Your task to perform on an android device: Open Wikipedia Image 0: 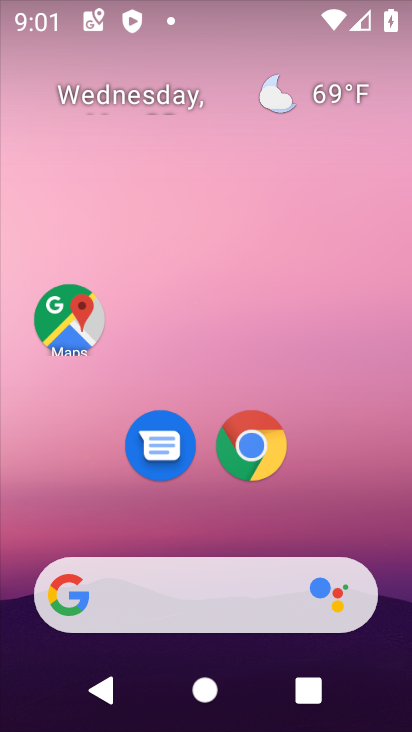
Step 0: drag from (301, 514) to (324, 93)
Your task to perform on an android device: Open Wikipedia Image 1: 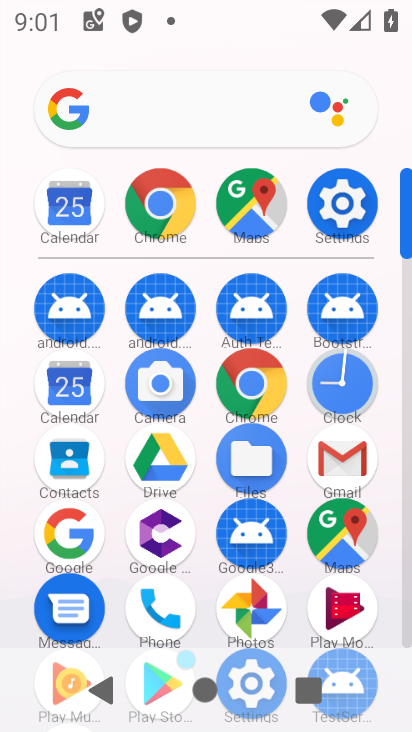
Step 1: click (149, 205)
Your task to perform on an android device: Open Wikipedia Image 2: 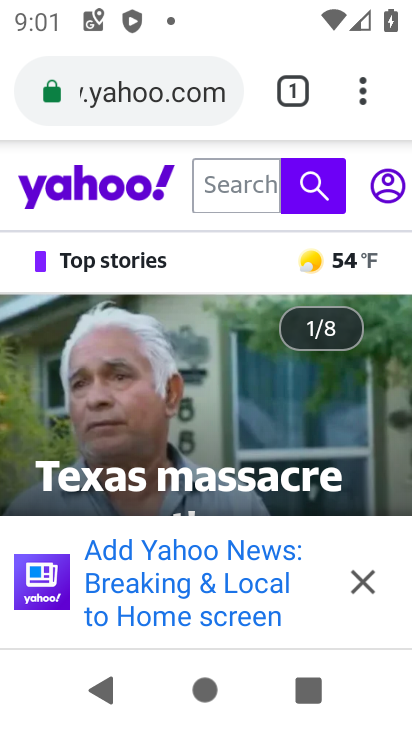
Step 2: drag from (359, 100) to (135, 191)
Your task to perform on an android device: Open Wikipedia Image 3: 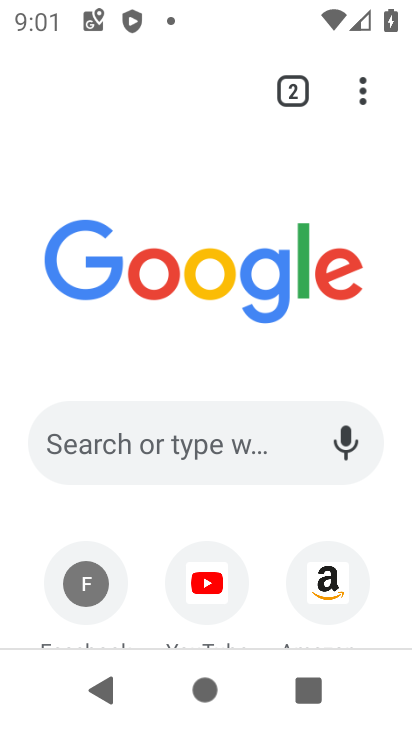
Step 3: drag from (240, 533) to (282, 164)
Your task to perform on an android device: Open Wikipedia Image 4: 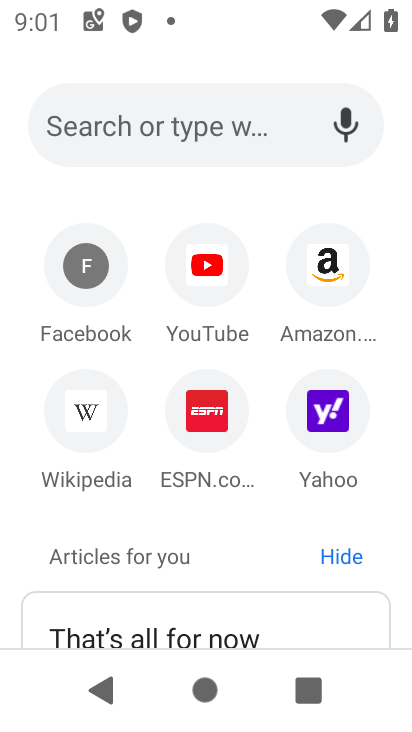
Step 4: click (90, 417)
Your task to perform on an android device: Open Wikipedia Image 5: 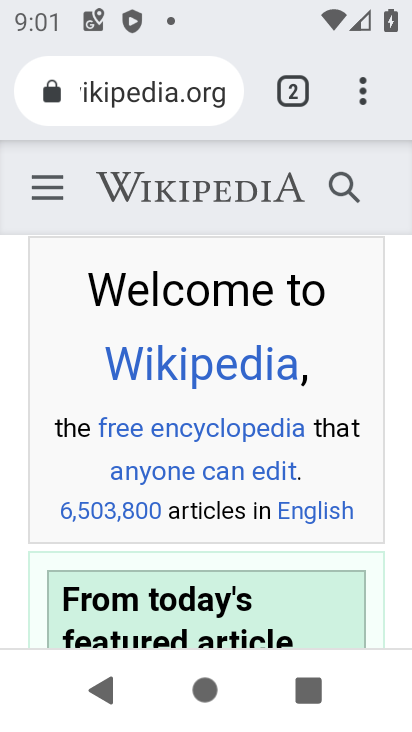
Step 5: task complete